Your task to perform on an android device: snooze an email in the gmail app Image 0: 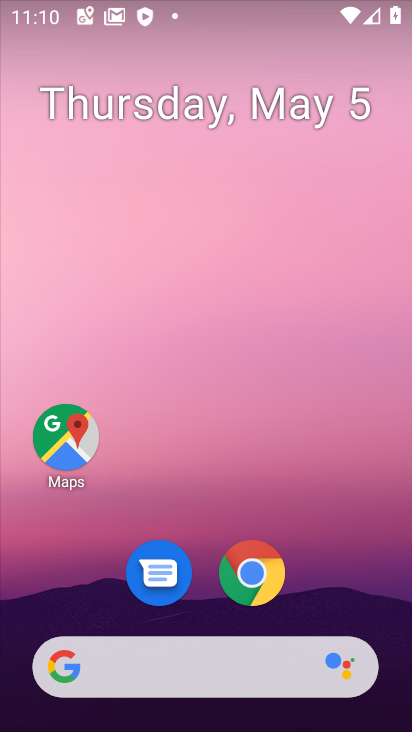
Step 0: drag from (303, 592) to (310, 233)
Your task to perform on an android device: snooze an email in the gmail app Image 1: 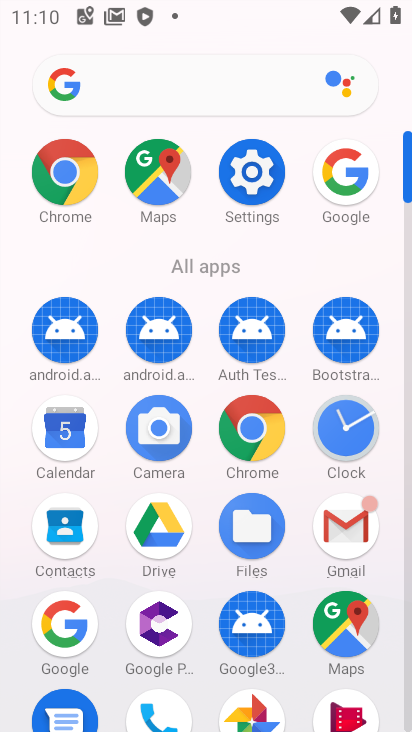
Step 1: click (334, 515)
Your task to perform on an android device: snooze an email in the gmail app Image 2: 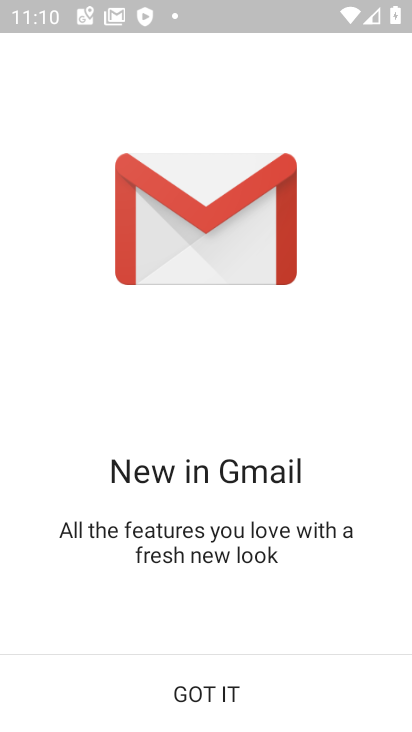
Step 2: click (217, 695)
Your task to perform on an android device: snooze an email in the gmail app Image 3: 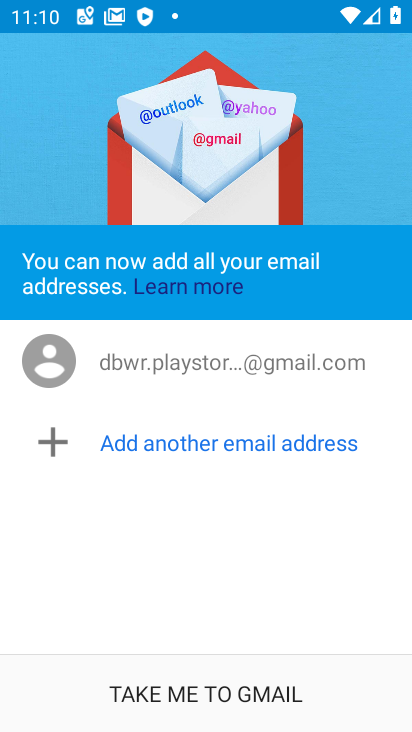
Step 3: click (217, 693)
Your task to perform on an android device: snooze an email in the gmail app Image 4: 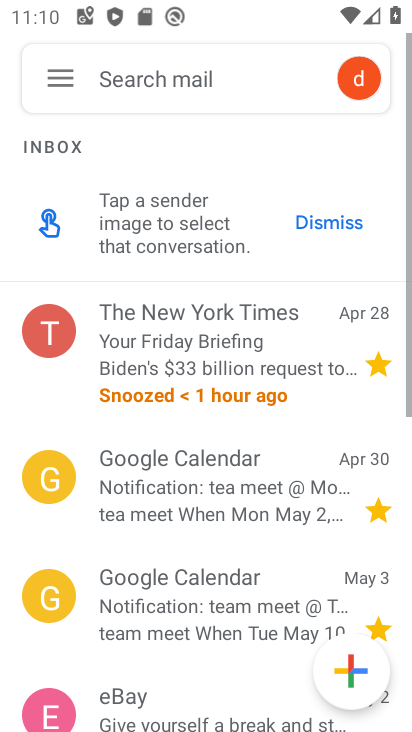
Step 4: click (62, 73)
Your task to perform on an android device: snooze an email in the gmail app Image 5: 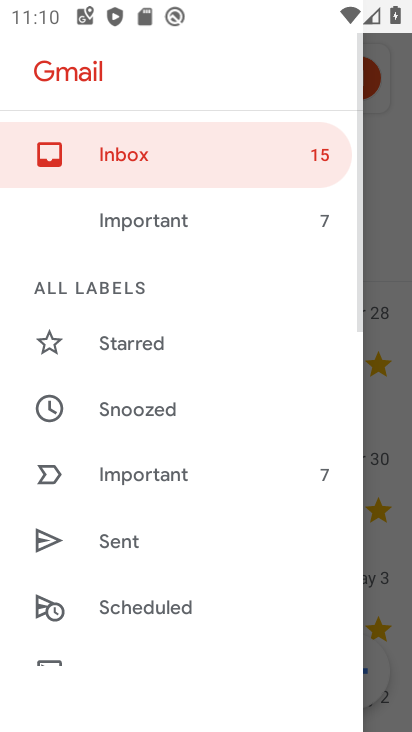
Step 5: drag from (172, 607) to (221, 243)
Your task to perform on an android device: snooze an email in the gmail app Image 6: 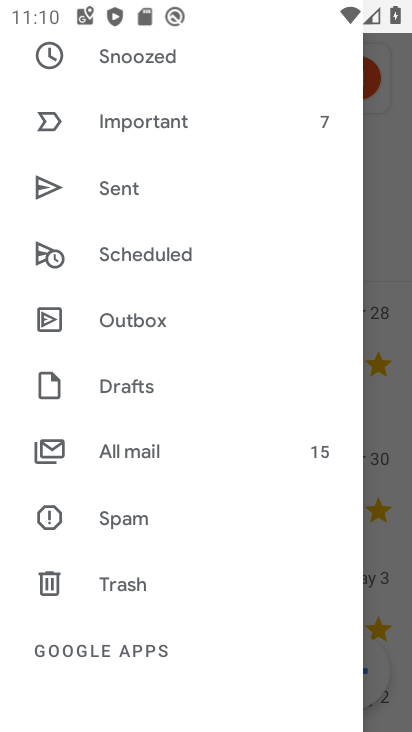
Step 6: drag from (157, 645) to (211, 252)
Your task to perform on an android device: snooze an email in the gmail app Image 7: 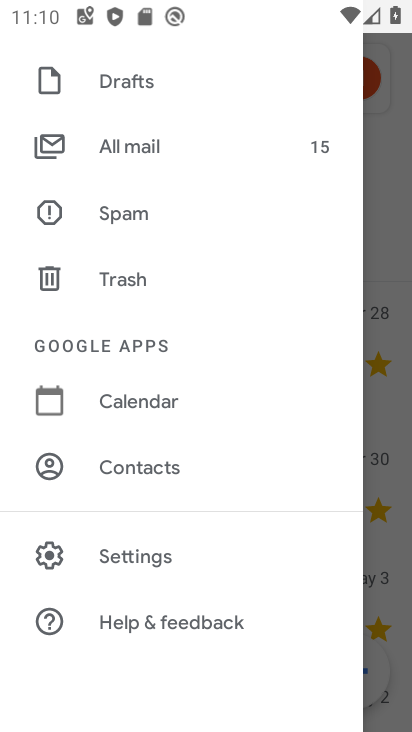
Step 7: click (157, 562)
Your task to perform on an android device: snooze an email in the gmail app Image 8: 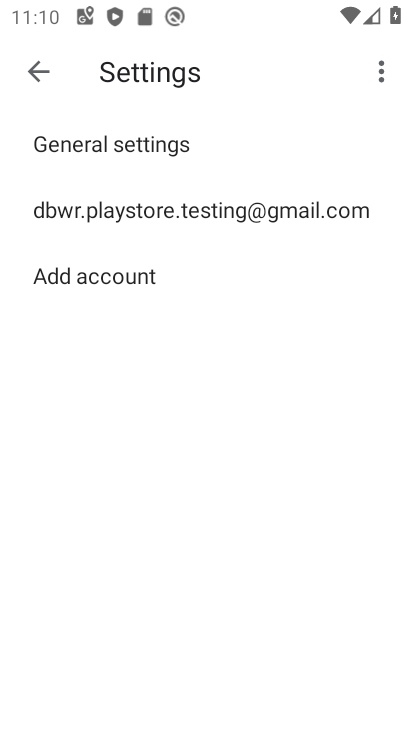
Step 8: click (164, 207)
Your task to perform on an android device: snooze an email in the gmail app Image 9: 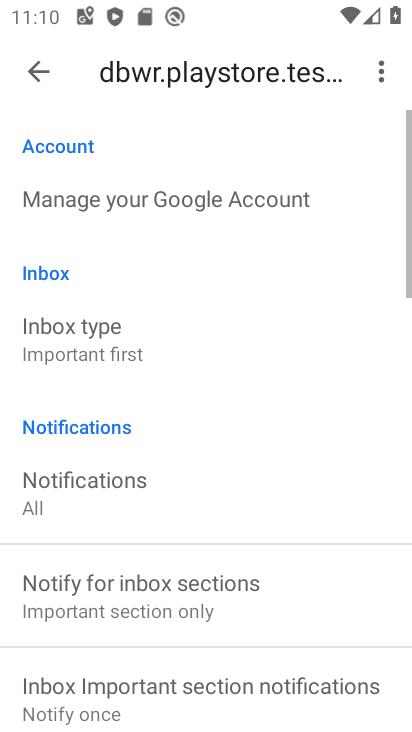
Step 9: drag from (152, 585) to (244, 184)
Your task to perform on an android device: snooze an email in the gmail app Image 10: 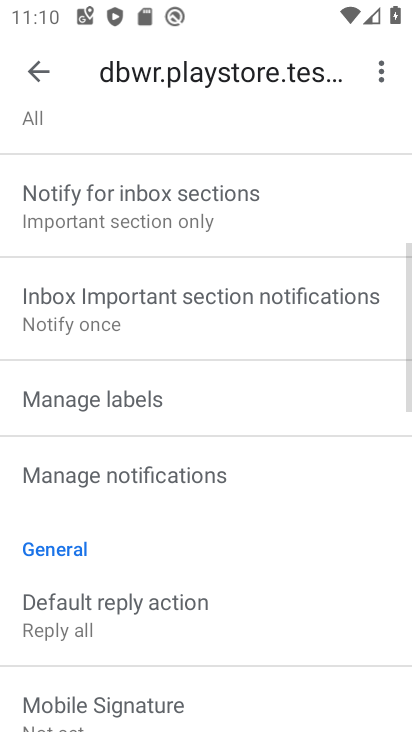
Step 10: drag from (200, 597) to (283, 149)
Your task to perform on an android device: snooze an email in the gmail app Image 11: 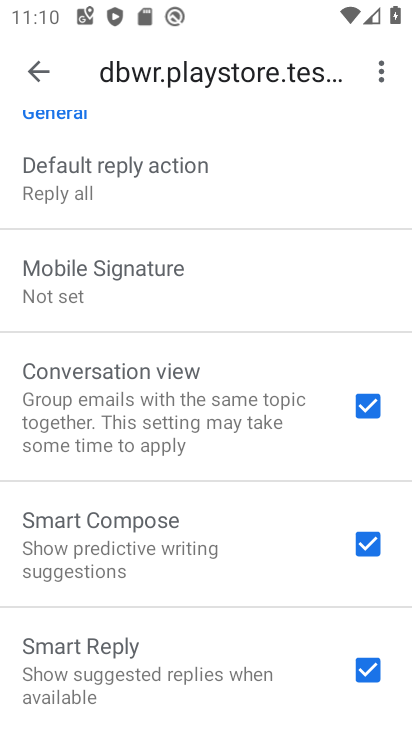
Step 11: drag from (147, 641) to (204, 151)
Your task to perform on an android device: snooze an email in the gmail app Image 12: 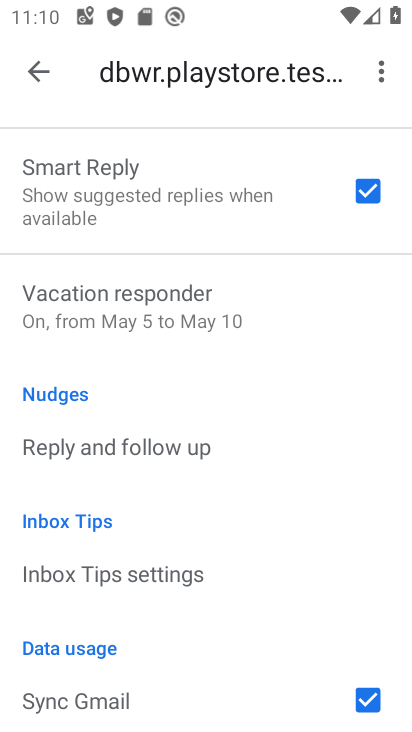
Step 12: drag from (224, 131) to (157, 680)
Your task to perform on an android device: snooze an email in the gmail app Image 13: 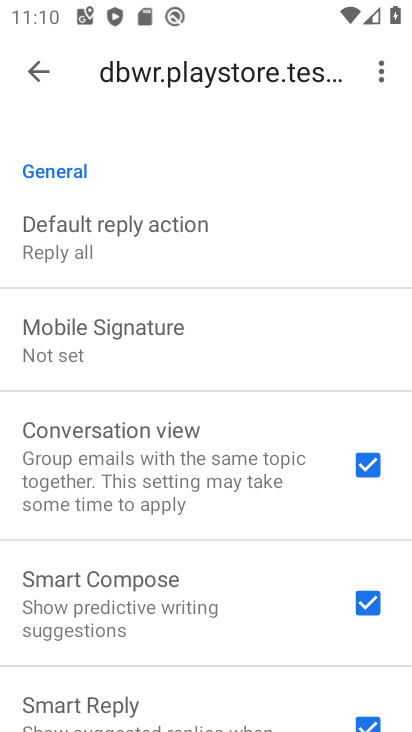
Step 13: drag from (177, 171) to (138, 604)
Your task to perform on an android device: snooze an email in the gmail app Image 14: 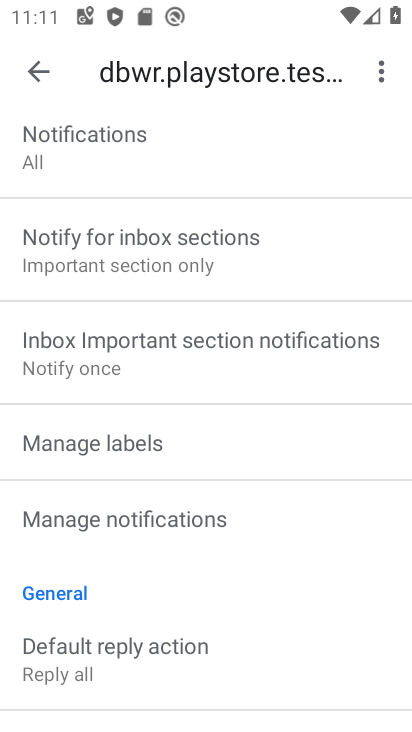
Step 14: click (134, 149)
Your task to perform on an android device: snooze an email in the gmail app Image 15: 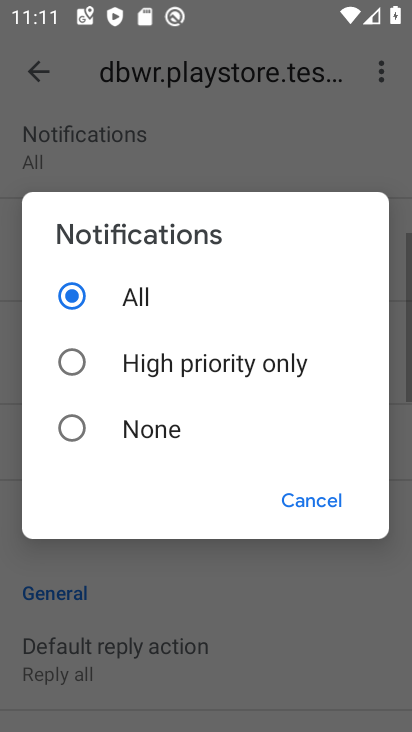
Step 15: click (122, 130)
Your task to perform on an android device: snooze an email in the gmail app Image 16: 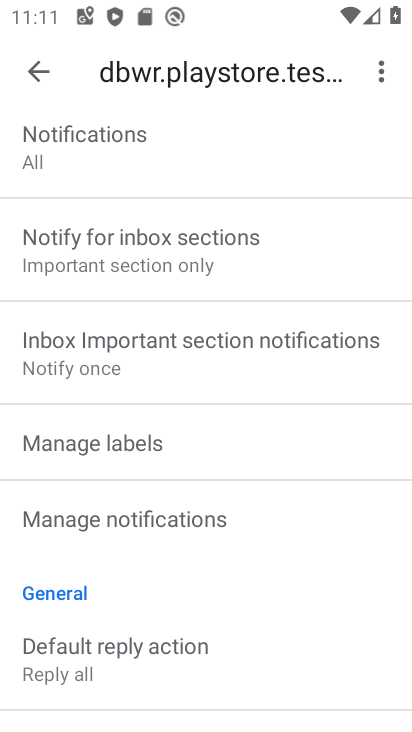
Step 16: click (322, 497)
Your task to perform on an android device: snooze an email in the gmail app Image 17: 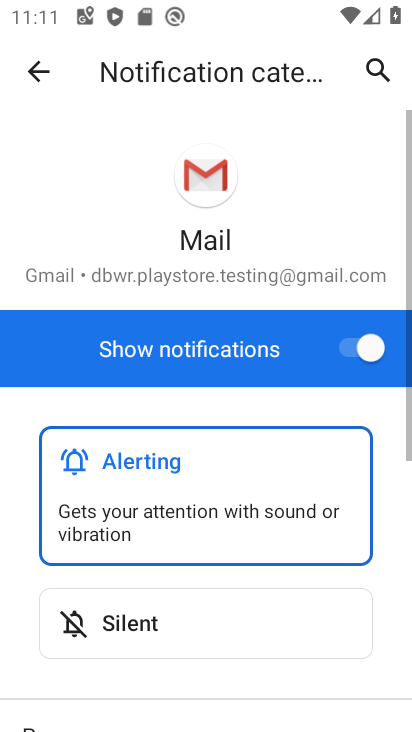
Step 17: click (127, 293)
Your task to perform on an android device: snooze an email in the gmail app Image 18: 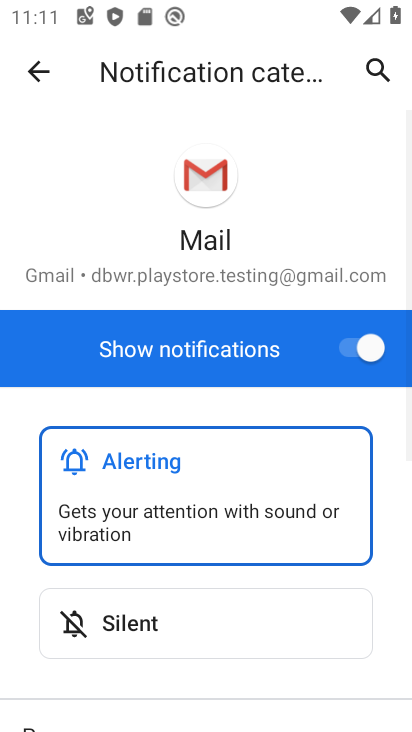
Step 18: click (42, 79)
Your task to perform on an android device: snooze an email in the gmail app Image 19: 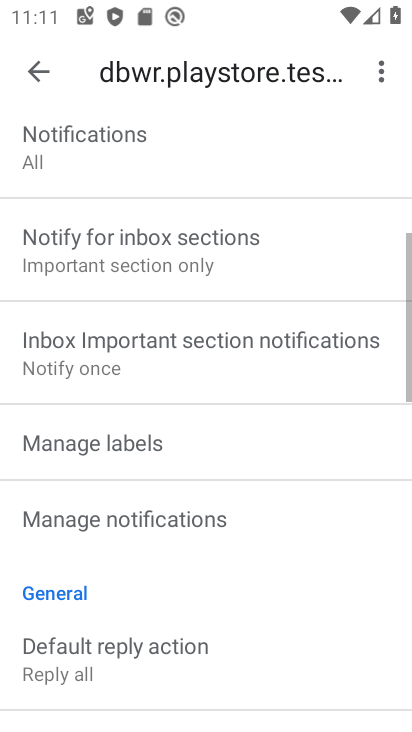
Step 19: click (42, 79)
Your task to perform on an android device: snooze an email in the gmail app Image 20: 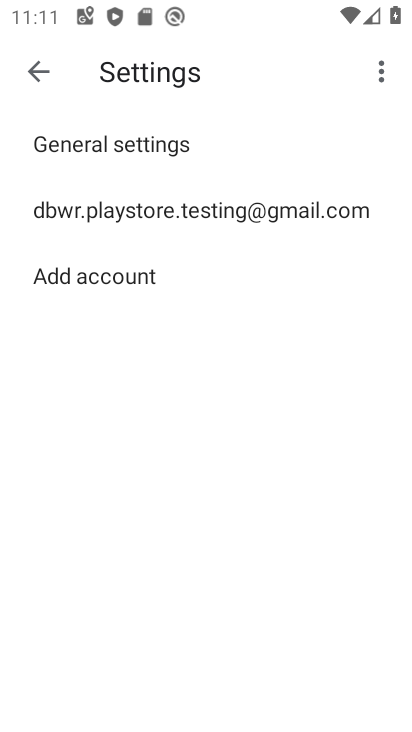
Step 20: click (42, 79)
Your task to perform on an android device: snooze an email in the gmail app Image 21: 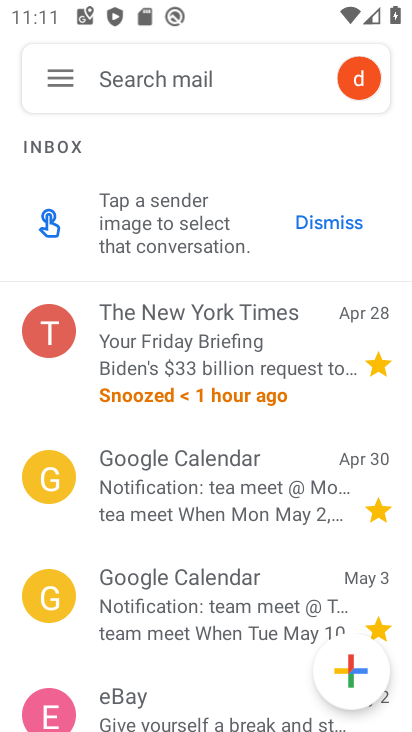
Step 21: click (63, 80)
Your task to perform on an android device: snooze an email in the gmail app Image 22: 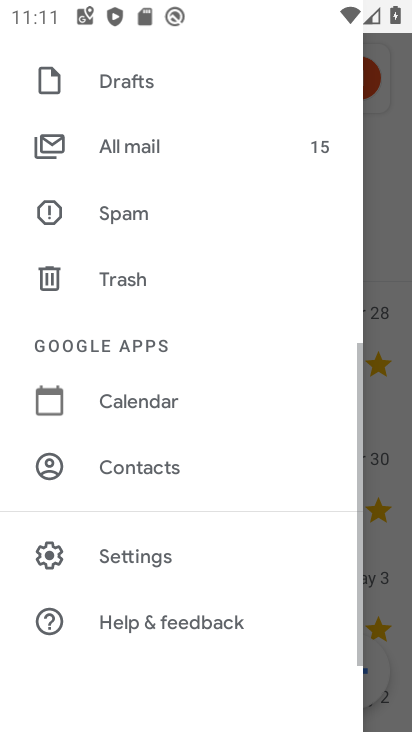
Step 22: drag from (165, 142) to (167, 648)
Your task to perform on an android device: snooze an email in the gmail app Image 23: 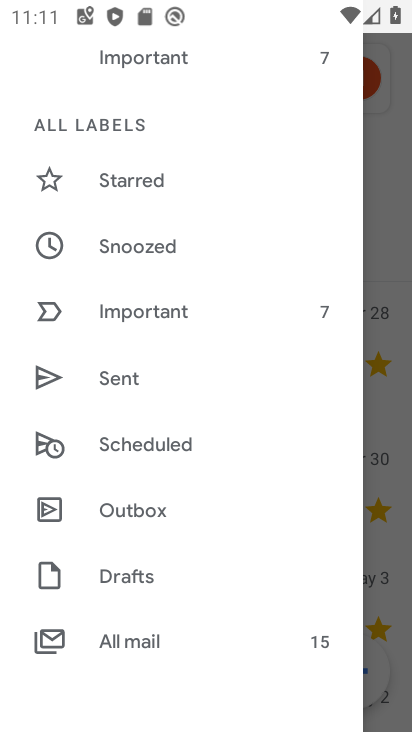
Step 23: drag from (207, 96) to (190, 591)
Your task to perform on an android device: snooze an email in the gmail app Image 24: 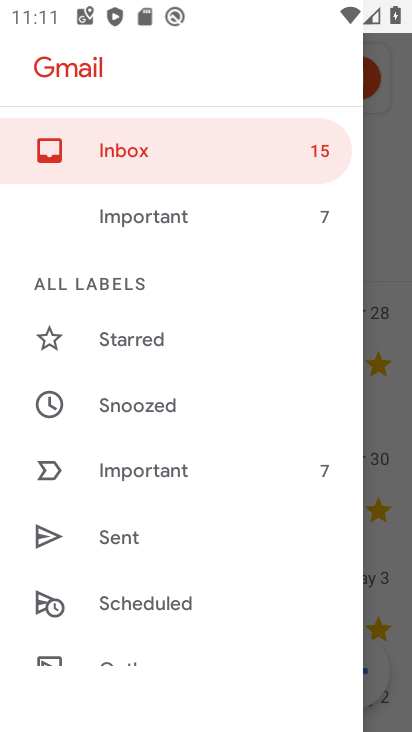
Step 24: click (178, 407)
Your task to perform on an android device: snooze an email in the gmail app Image 25: 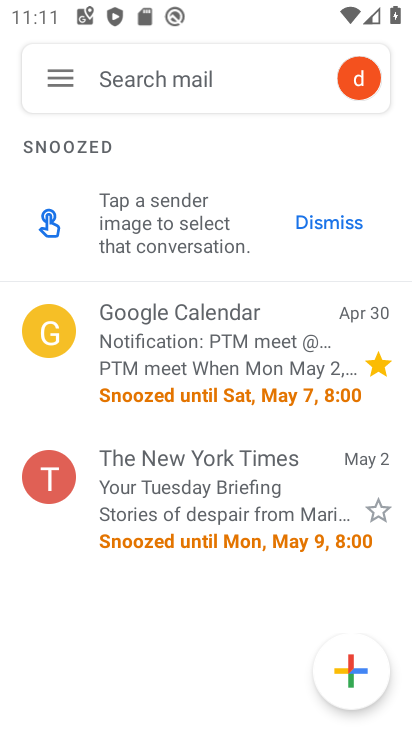
Step 25: task complete